Your task to perform on an android device: open the mobile data screen to see how much data has been used Image 0: 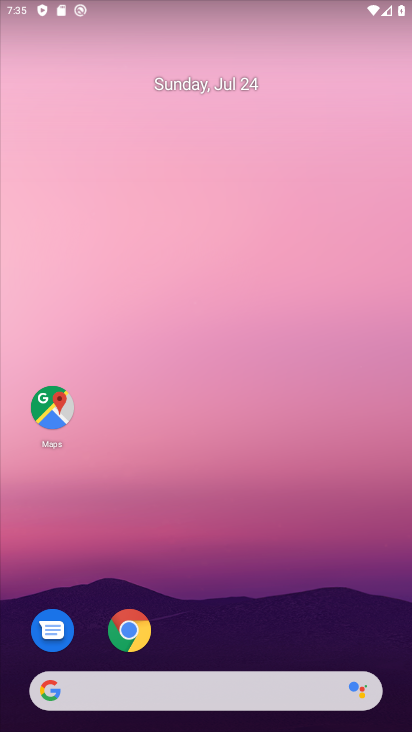
Step 0: drag from (225, 652) to (187, 85)
Your task to perform on an android device: open the mobile data screen to see how much data has been used Image 1: 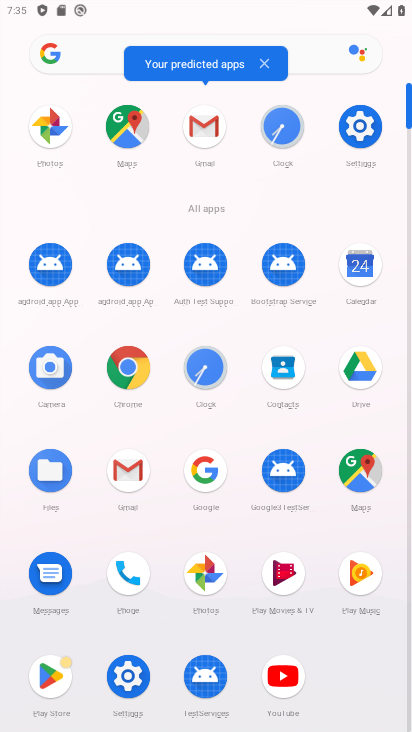
Step 1: click (355, 118)
Your task to perform on an android device: open the mobile data screen to see how much data has been used Image 2: 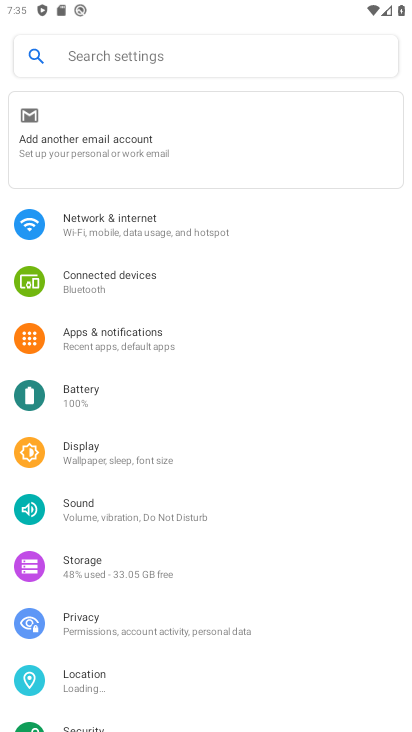
Step 2: click (98, 232)
Your task to perform on an android device: open the mobile data screen to see how much data has been used Image 3: 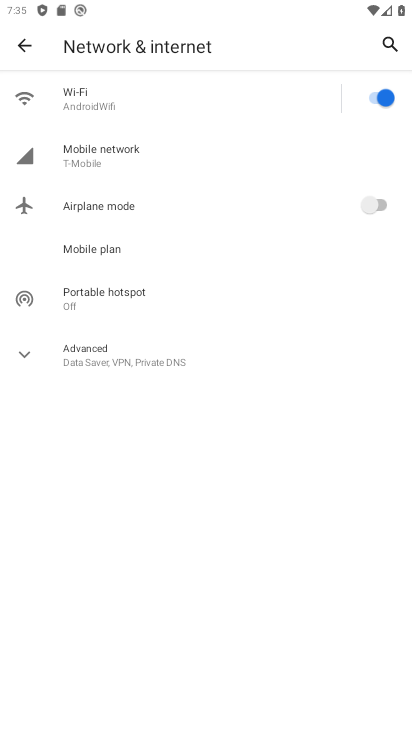
Step 3: click (197, 163)
Your task to perform on an android device: open the mobile data screen to see how much data has been used Image 4: 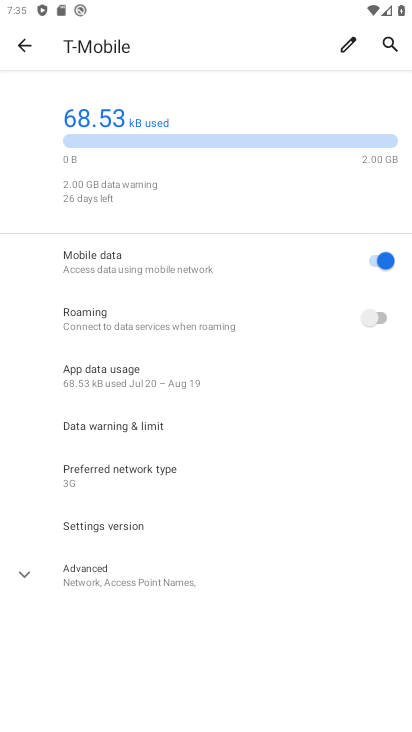
Step 4: click (152, 359)
Your task to perform on an android device: open the mobile data screen to see how much data has been used Image 5: 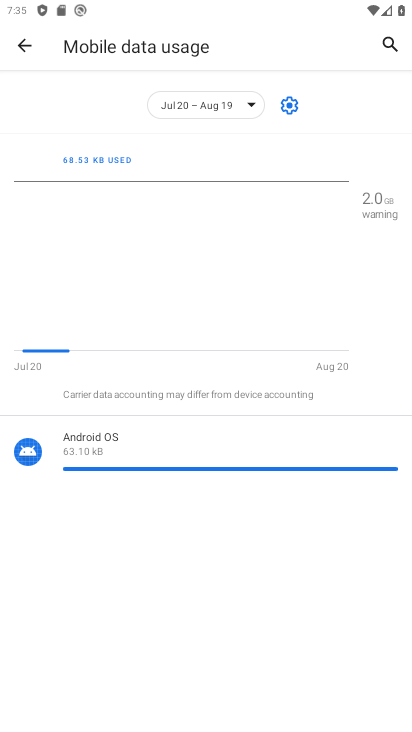
Step 5: task complete